Your task to perform on an android device: open app "Firefox Browser" Image 0: 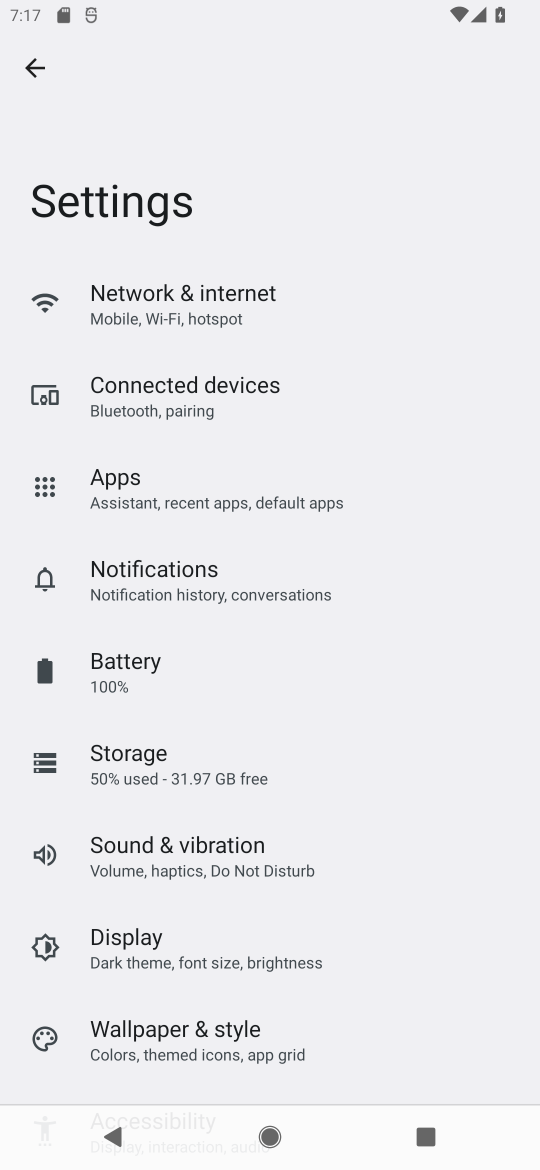
Step 0: press home button
Your task to perform on an android device: open app "Firefox Browser" Image 1: 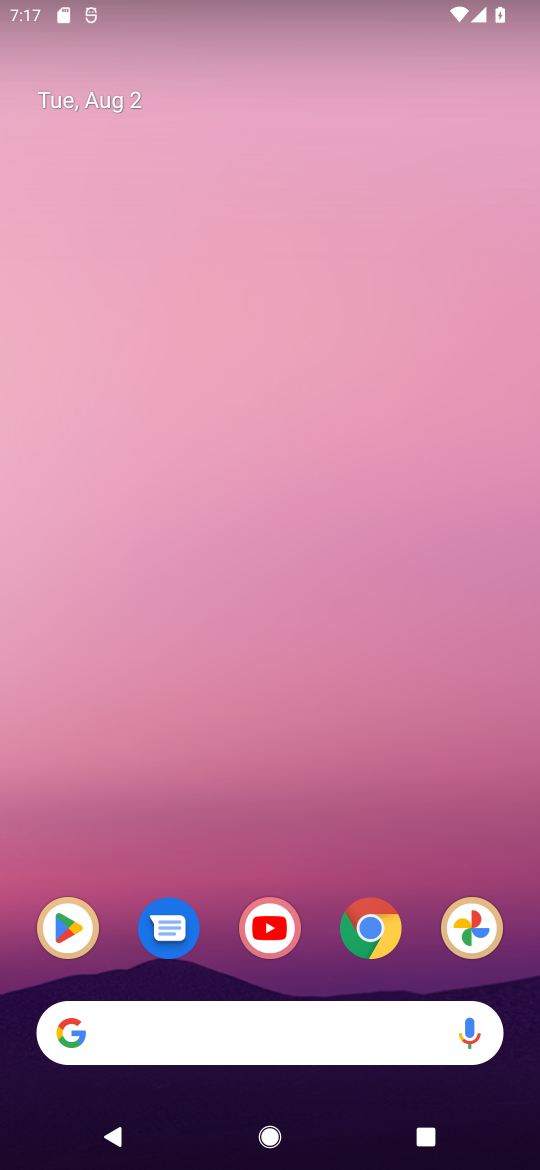
Step 1: click (62, 923)
Your task to perform on an android device: open app "Firefox Browser" Image 2: 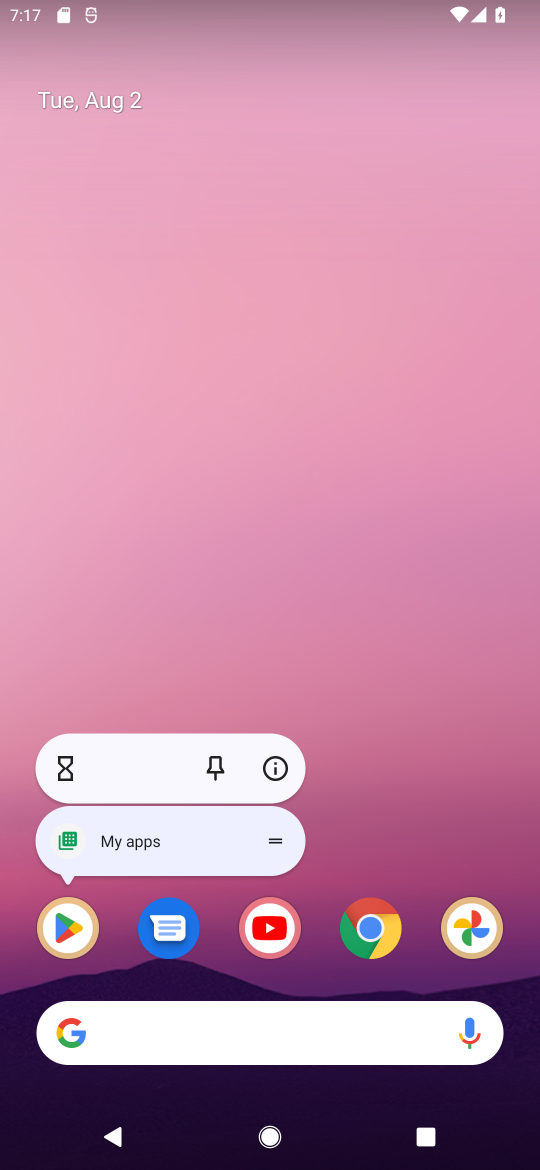
Step 2: click (62, 923)
Your task to perform on an android device: open app "Firefox Browser" Image 3: 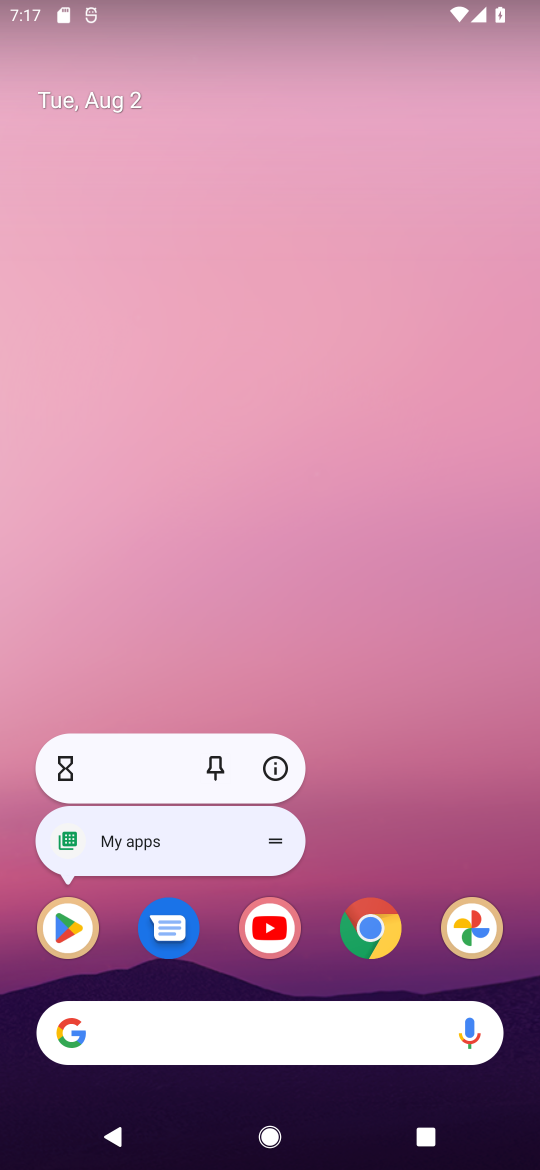
Step 3: click (73, 950)
Your task to perform on an android device: open app "Firefox Browser" Image 4: 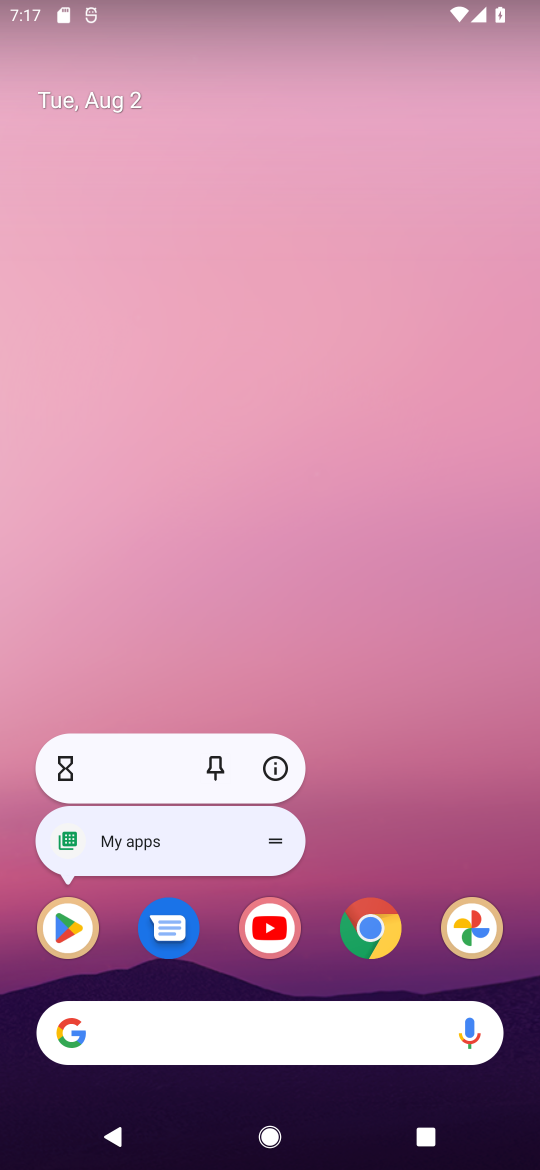
Step 4: click (70, 950)
Your task to perform on an android device: open app "Firefox Browser" Image 5: 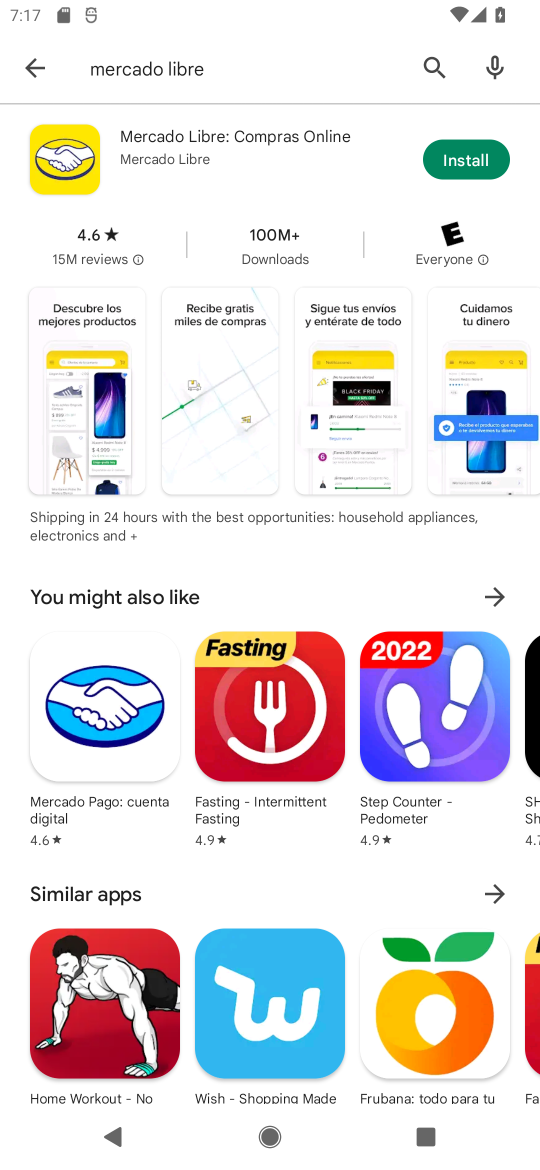
Step 5: click (429, 65)
Your task to perform on an android device: open app "Firefox Browser" Image 6: 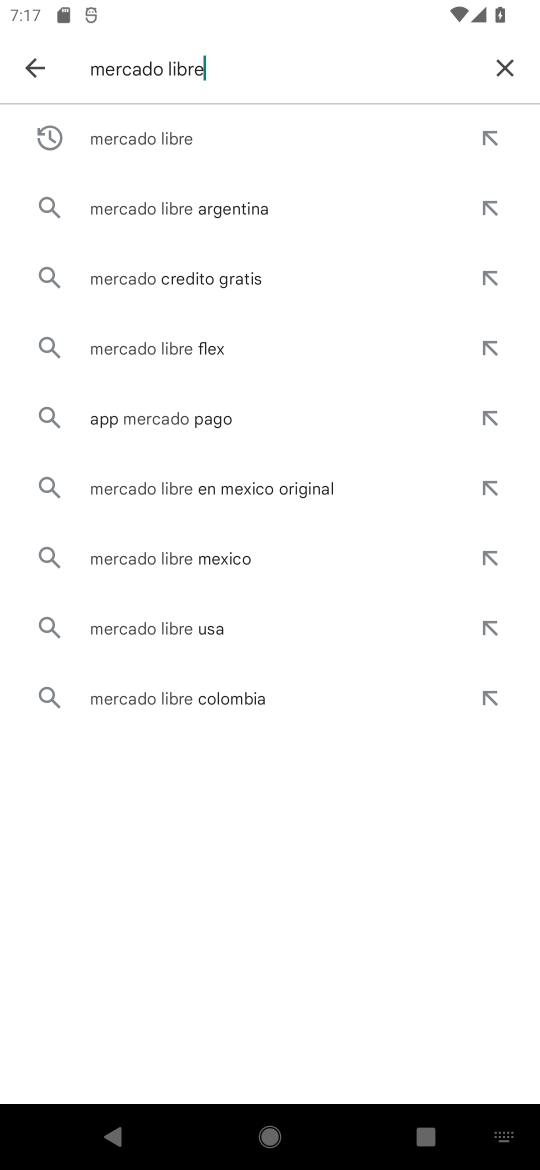
Step 6: click (514, 70)
Your task to perform on an android device: open app "Firefox Browser" Image 7: 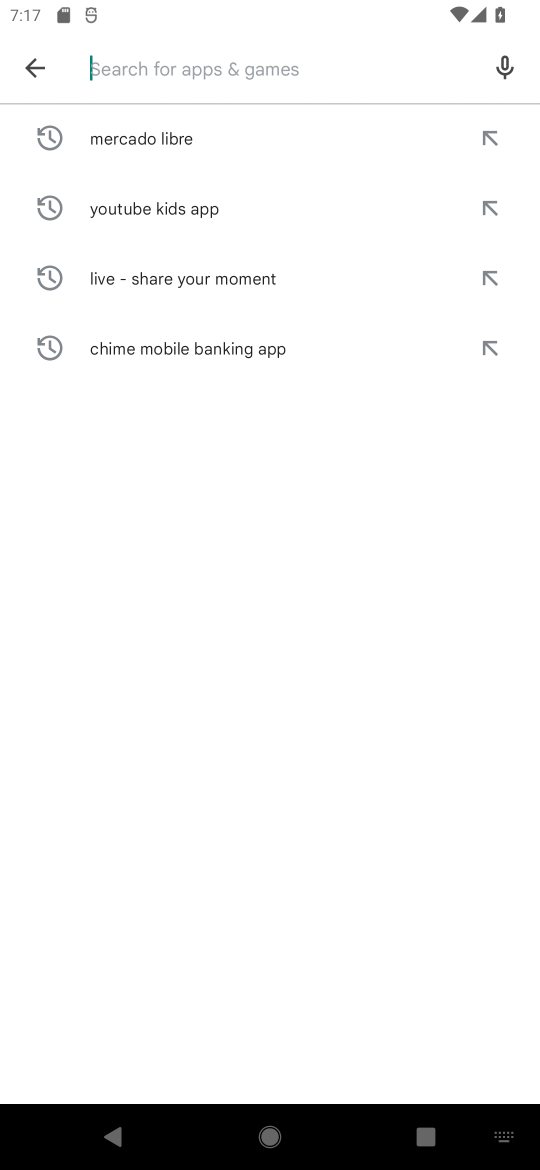
Step 7: click (331, 32)
Your task to perform on an android device: open app "Firefox Browser" Image 8: 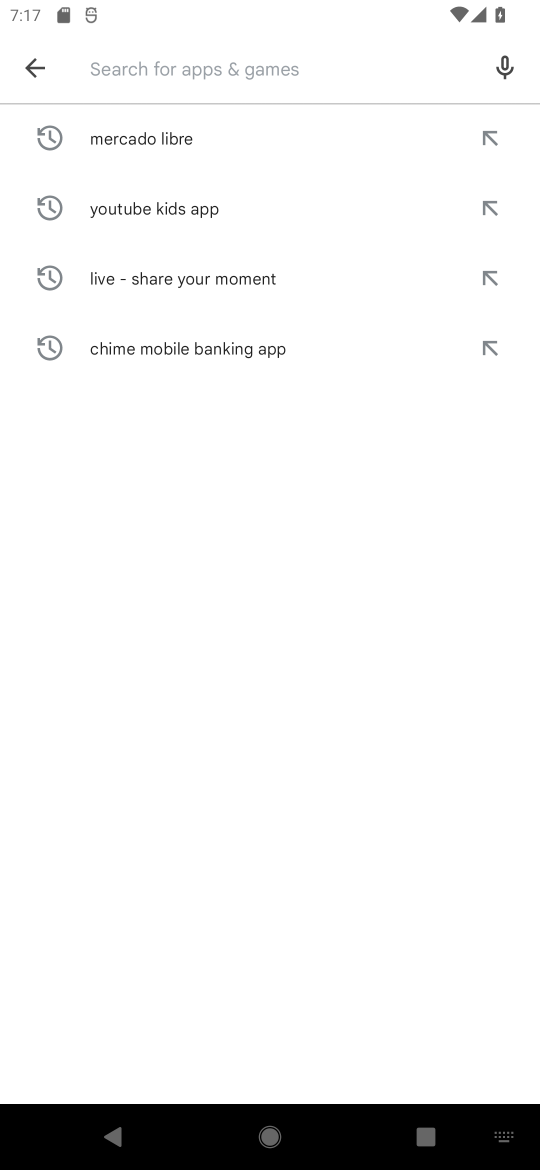
Step 8: type "Firefox Browser"
Your task to perform on an android device: open app "Firefox Browser" Image 9: 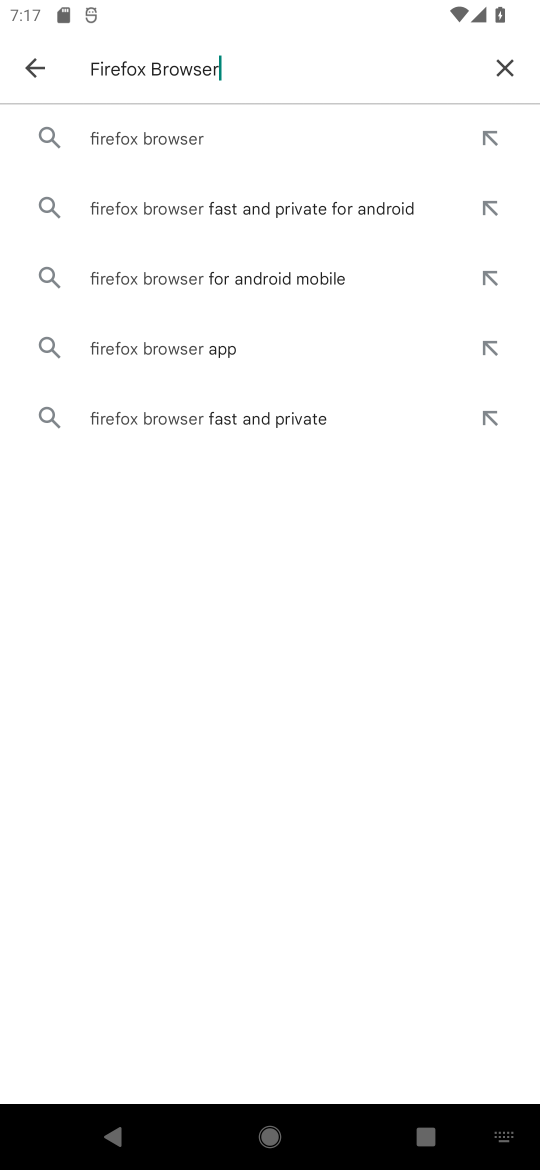
Step 9: click (135, 131)
Your task to perform on an android device: open app "Firefox Browser" Image 10: 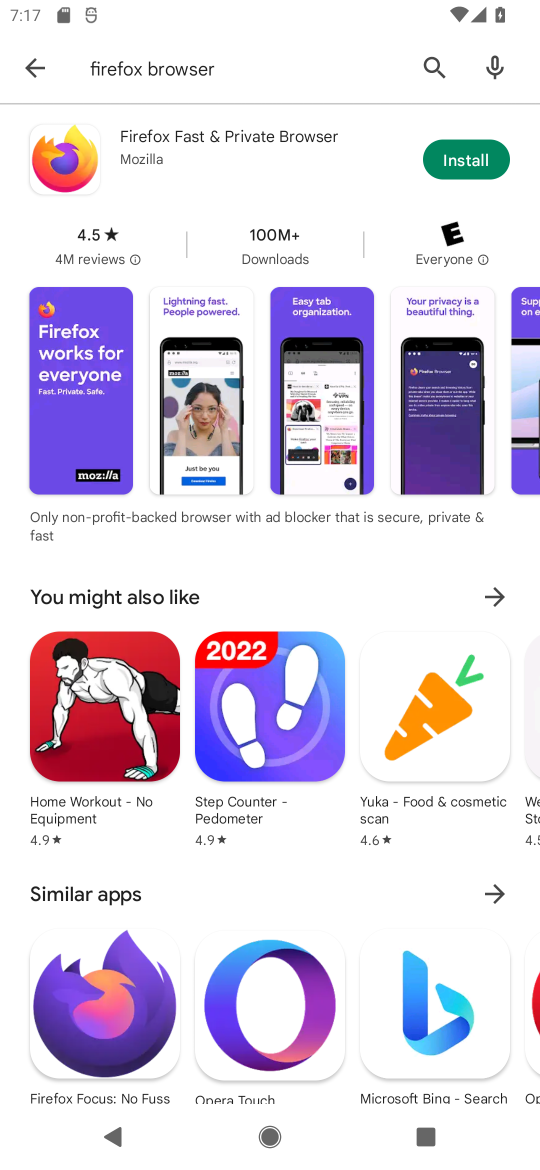
Step 10: task complete